Your task to perform on an android device: Toggle the flashlight Image 0: 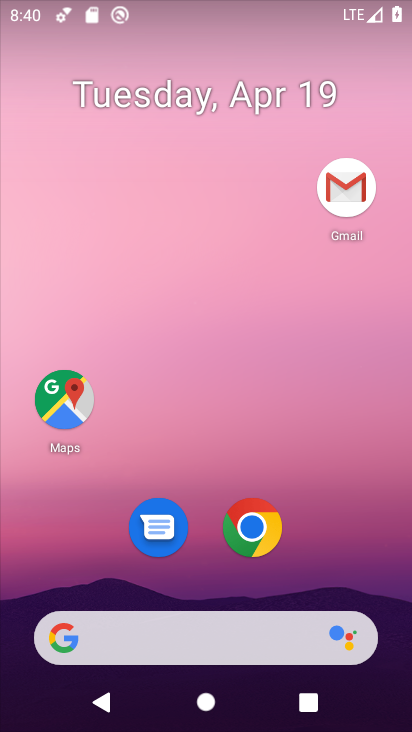
Step 0: drag from (366, 536) to (286, 167)
Your task to perform on an android device: Toggle the flashlight Image 1: 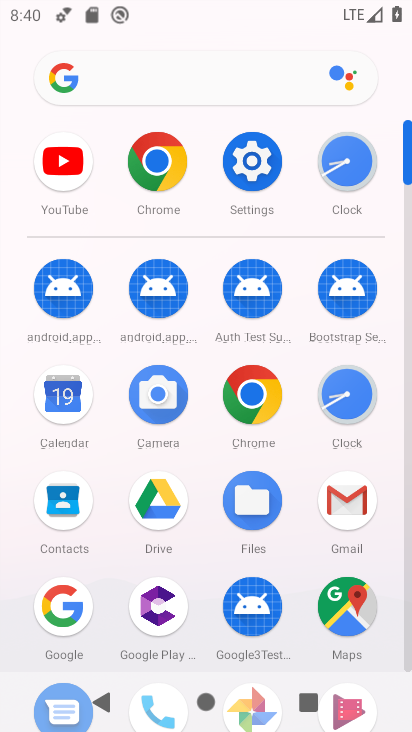
Step 1: click (257, 185)
Your task to perform on an android device: Toggle the flashlight Image 2: 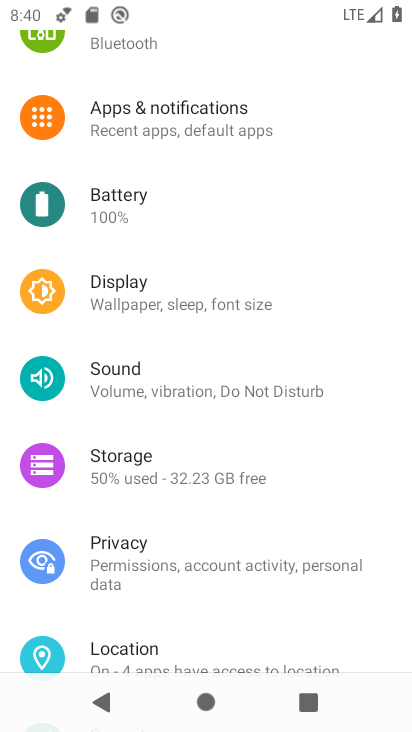
Step 2: drag from (331, 138) to (363, 489)
Your task to perform on an android device: Toggle the flashlight Image 3: 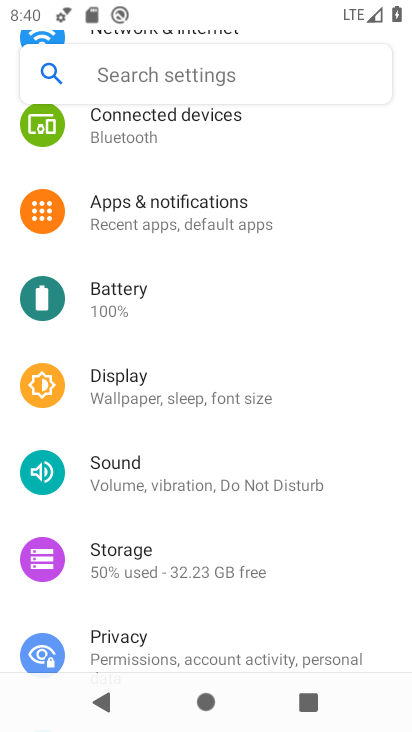
Step 3: click (206, 86)
Your task to perform on an android device: Toggle the flashlight Image 4: 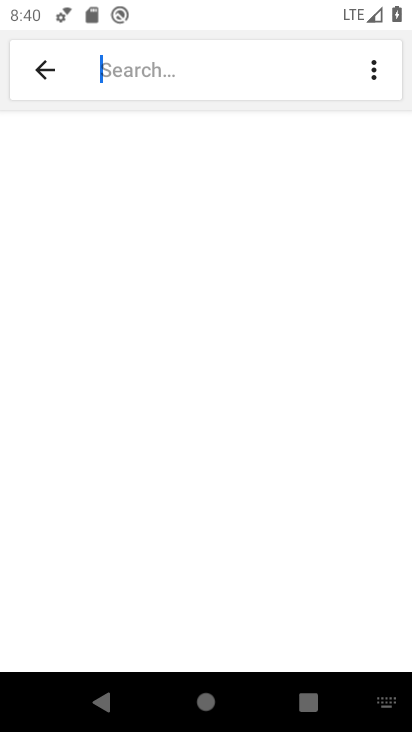
Step 4: type "flashlight"
Your task to perform on an android device: Toggle the flashlight Image 5: 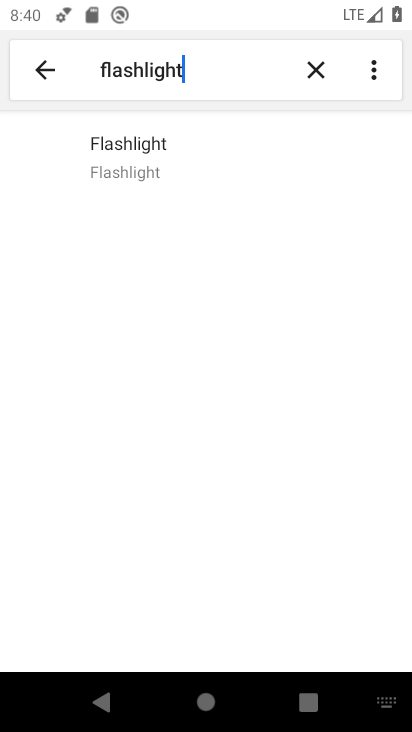
Step 5: click (194, 170)
Your task to perform on an android device: Toggle the flashlight Image 6: 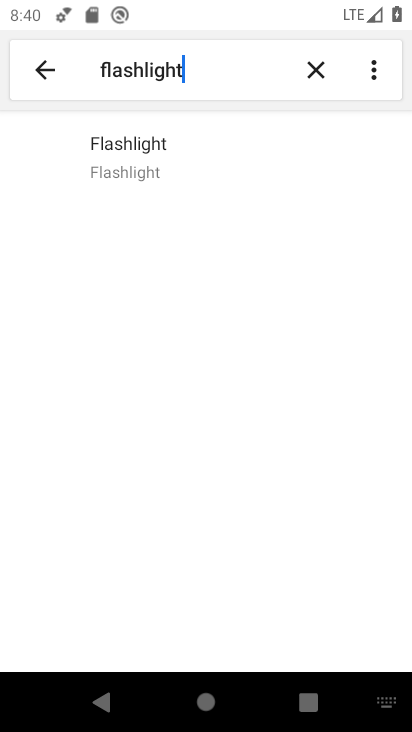
Step 6: task complete